Your task to perform on an android device: Go to settings Image 0: 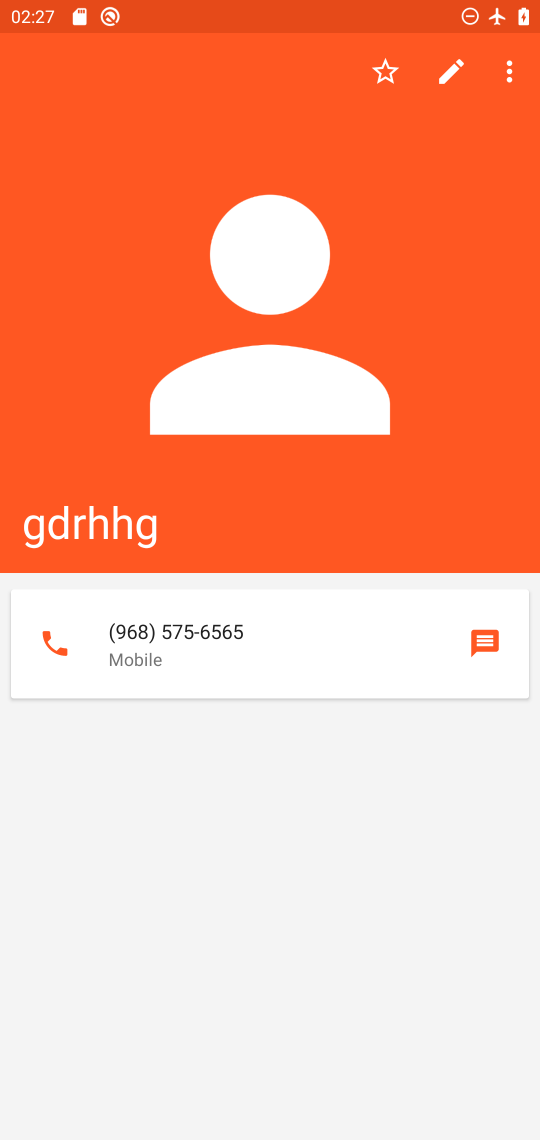
Step 0: press back button
Your task to perform on an android device: Go to settings Image 1: 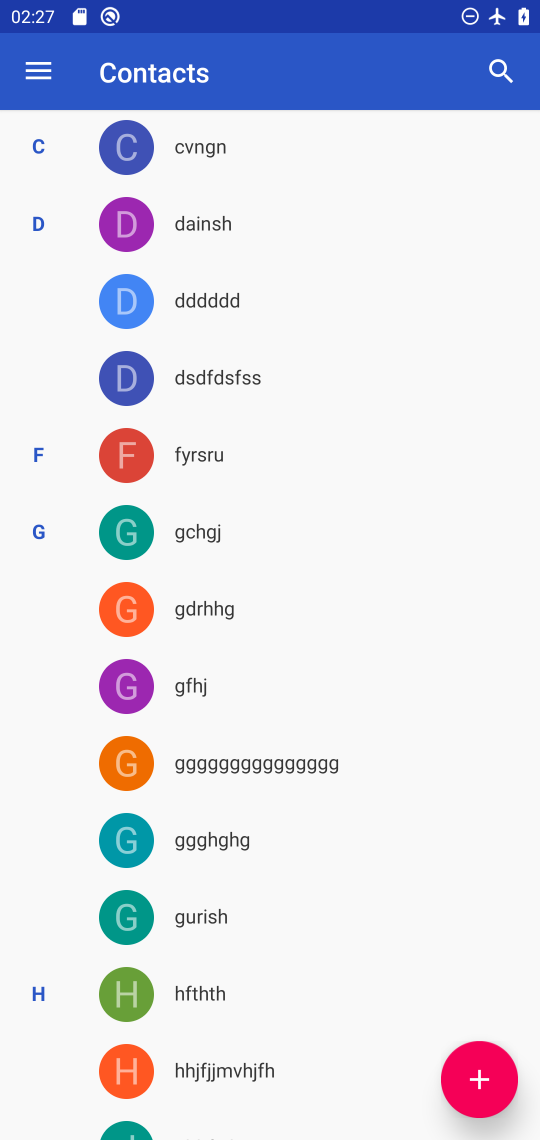
Step 1: press home button
Your task to perform on an android device: Go to settings Image 2: 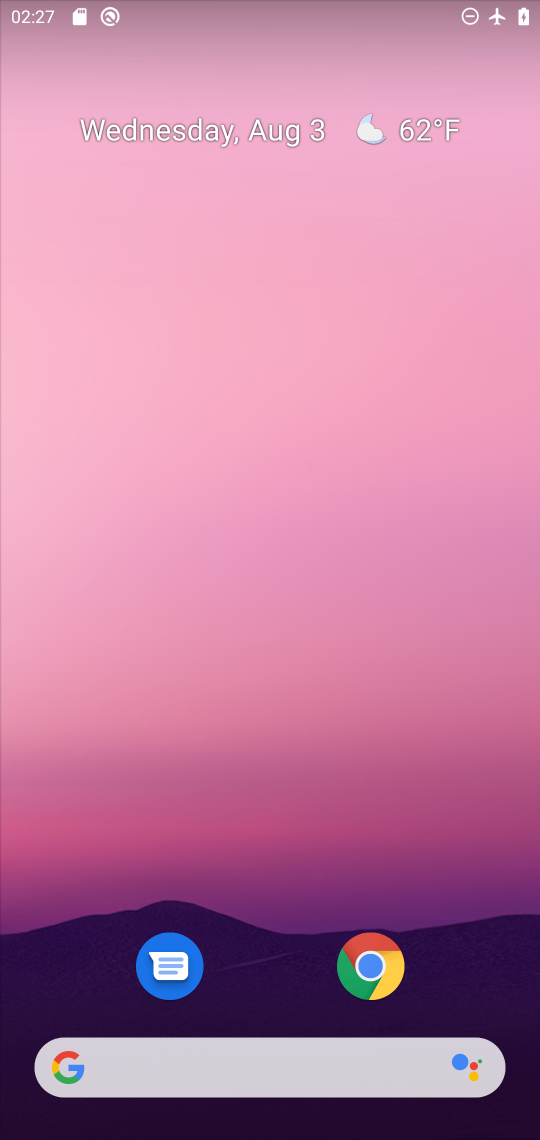
Step 2: drag from (264, 952) to (266, 344)
Your task to perform on an android device: Go to settings Image 3: 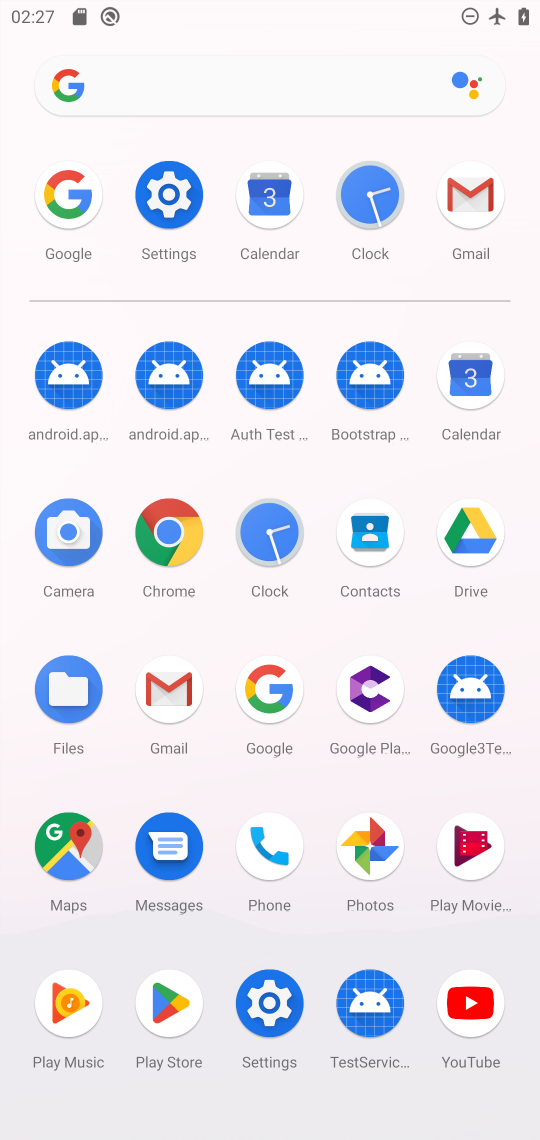
Step 3: click (172, 201)
Your task to perform on an android device: Go to settings Image 4: 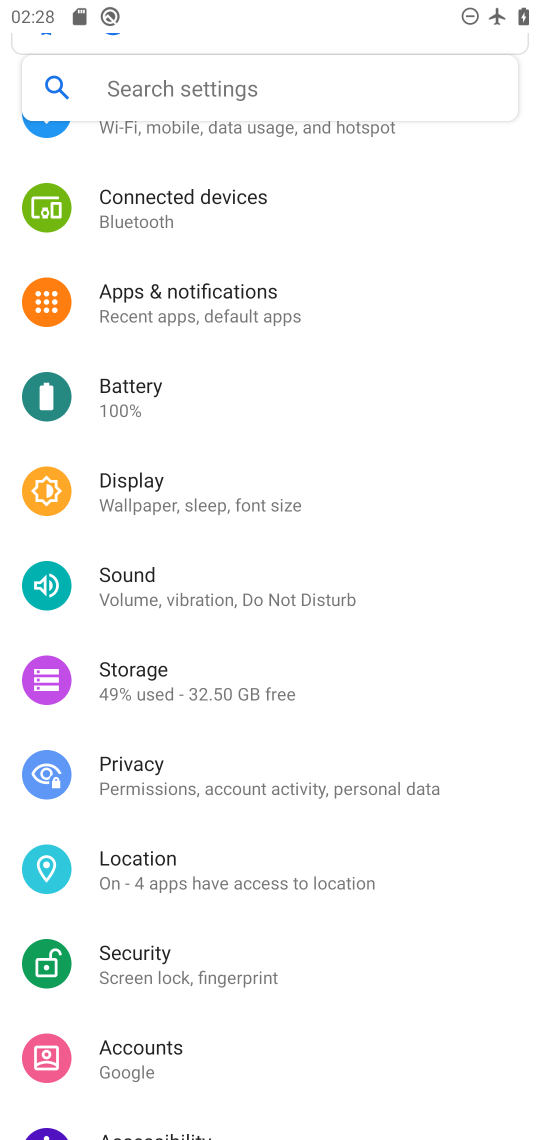
Step 4: task complete